Your task to perform on an android device: Open Chrome and go to settings Image 0: 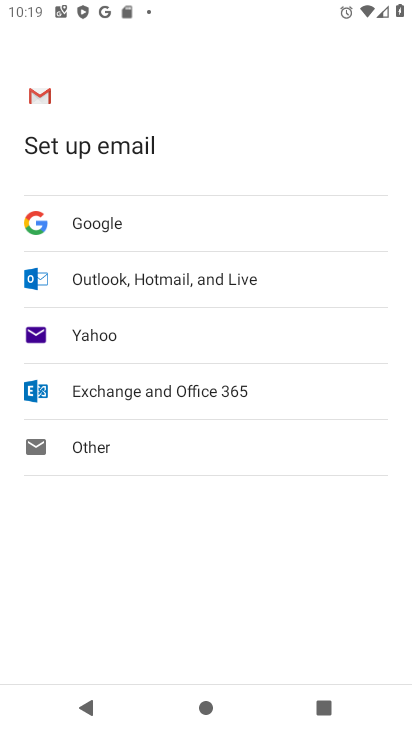
Step 0: press home button
Your task to perform on an android device: Open Chrome and go to settings Image 1: 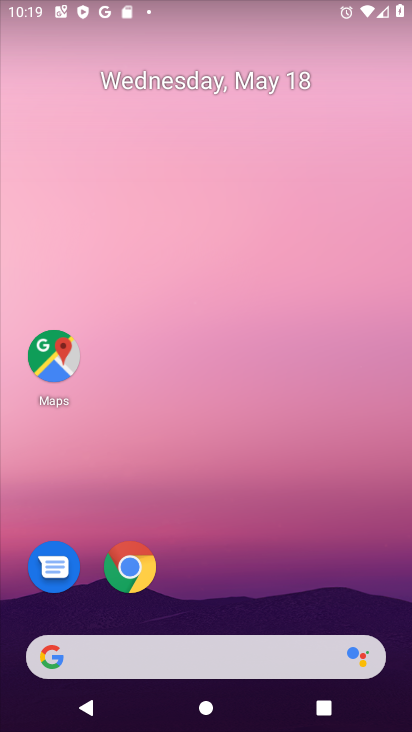
Step 1: click (128, 576)
Your task to perform on an android device: Open Chrome and go to settings Image 2: 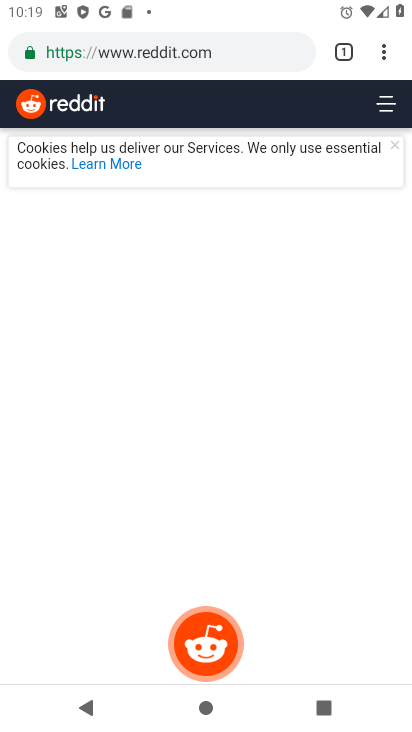
Step 2: task complete